Your task to perform on an android device: see sites visited before in the chrome app Image 0: 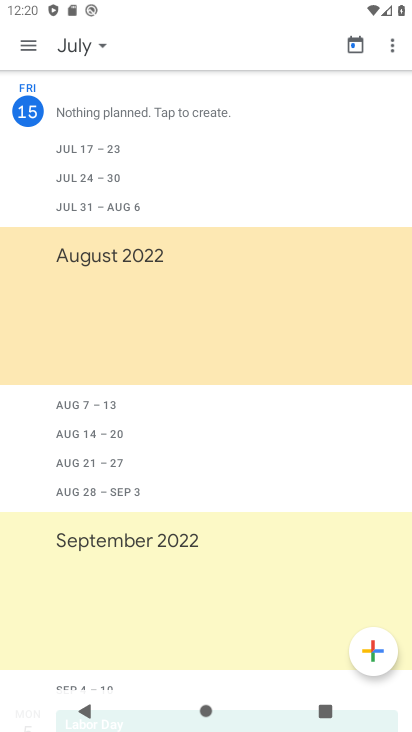
Step 0: press home button
Your task to perform on an android device: see sites visited before in the chrome app Image 1: 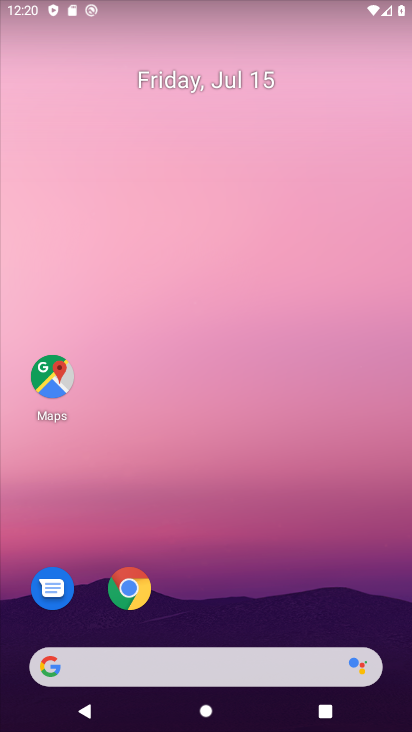
Step 1: click (124, 592)
Your task to perform on an android device: see sites visited before in the chrome app Image 2: 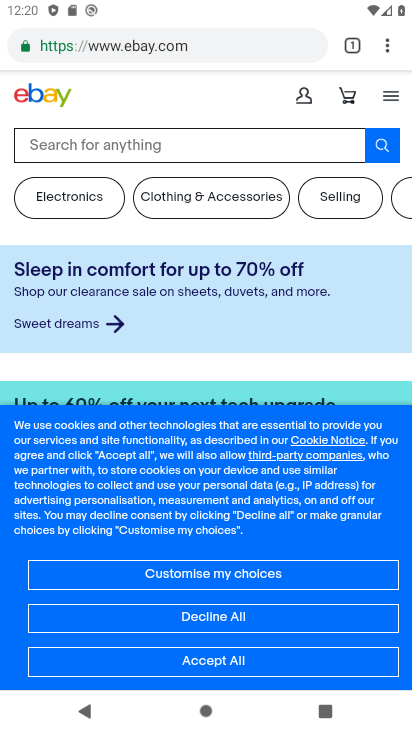
Step 2: click (386, 47)
Your task to perform on an android device: see sites visited before in the chrome app Image 3: 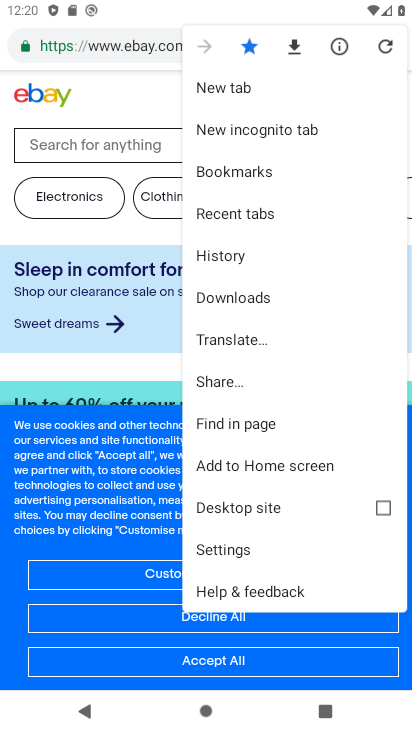
Step 3: click (242, 253)
Your task to perform on an android device: see sites visited before in the chrome app Image 4: 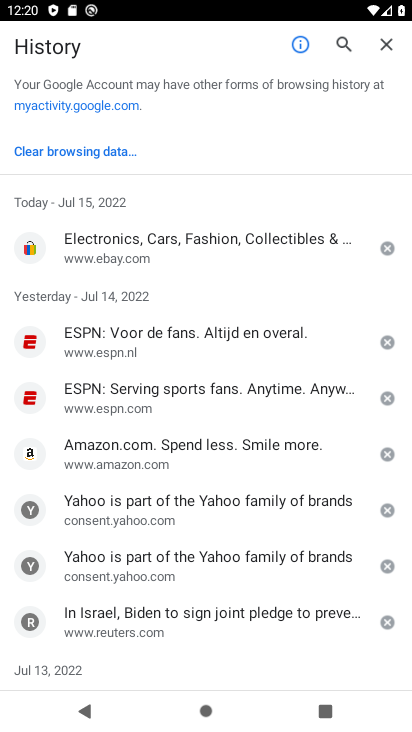
Step 4: task complete